Your task to perform on an android device: change alarm snooze length Image 0: 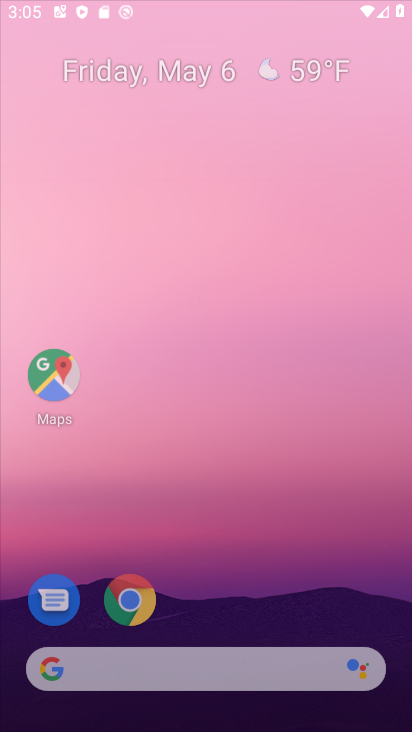
Step 0: click (299, 255)
Your task to perform on an android device: change alarm snooze length Image 1: 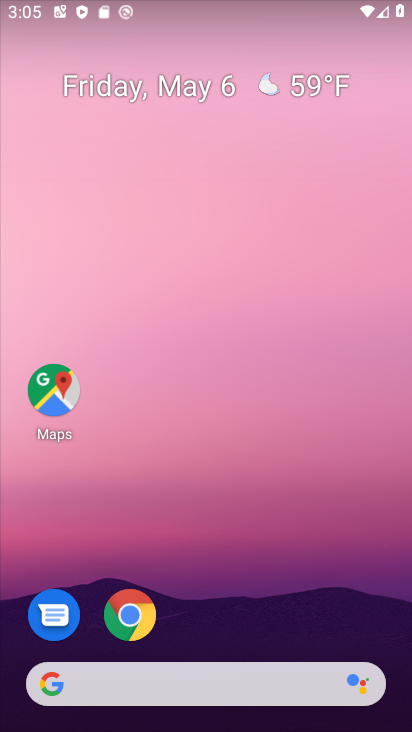
Step 1: drag from (254, 563) to (271, 281)
Your task to perform on an android device: change alarm snooze length Image 2: 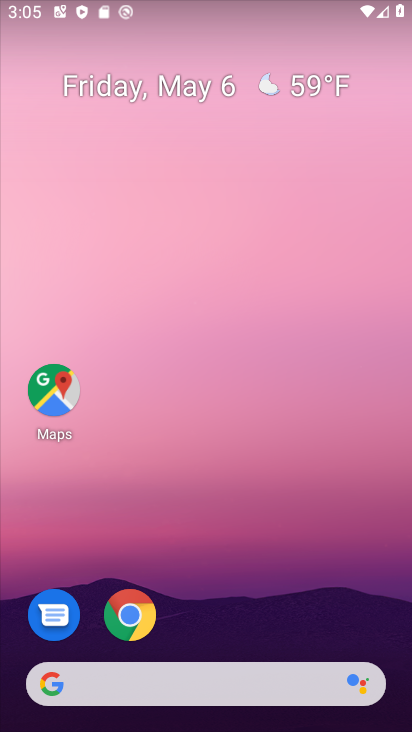
Step 2: drag from (249, 587) to (256, 221)
Your task to perform on an android device: change alarm snooze length Image 3: 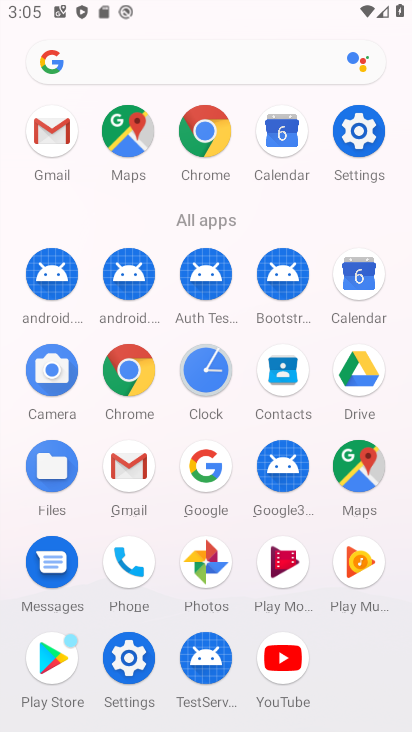
Step 3: click (47, 131)
Your task to perform on an android device: change alarm snooze length Image 4: 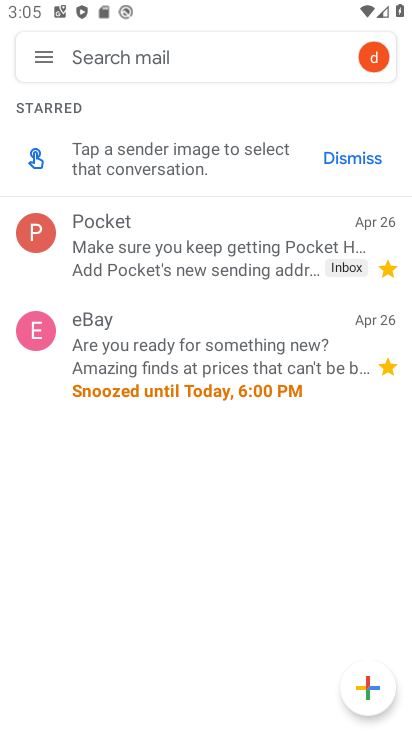
Step 4: click (36, 46)
Your task to perform on an android device: change alarm snooze length Image 5: 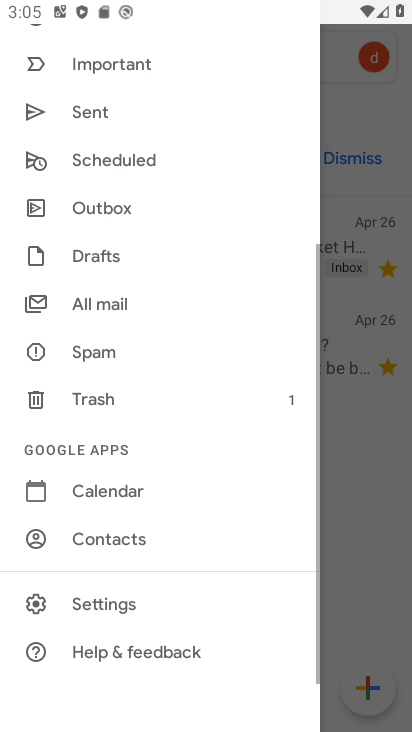
Step 5: drag from (153, 142) to (104, 674)
Your task to perform on an android device: change alarm snooze length Image 6: 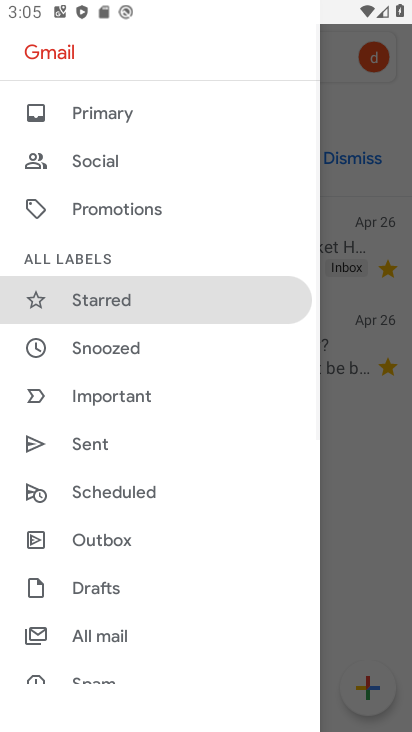
Step 6: click (114, 343)
Your task to perform on an android device: change alarm snooze length Image 7: 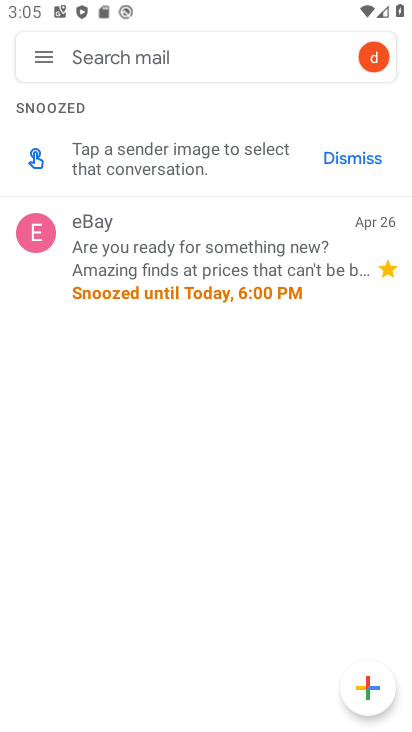
Step 7: press home button
Your task to perform on an android device: change alarm snooze length Image 8: 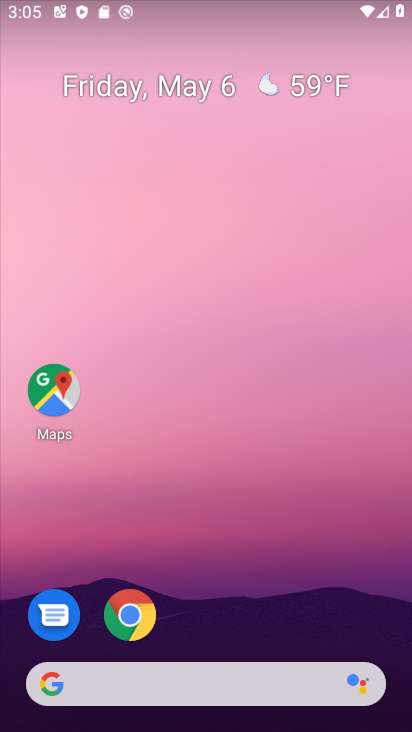
Step 8: drag from (256, 538) to (249, 274)
Your task to perform on an android device: change alarm snooze length Image 9: 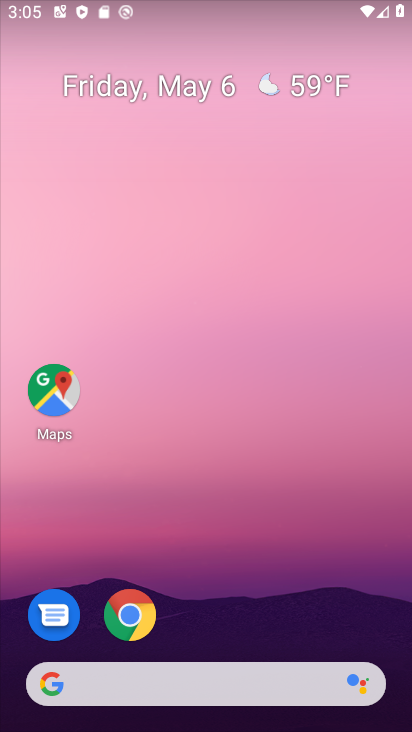
Step 9: drag from (287, 625) to (297, 247)
Your task to perform on an android device: change alarm snooze length Image 10: 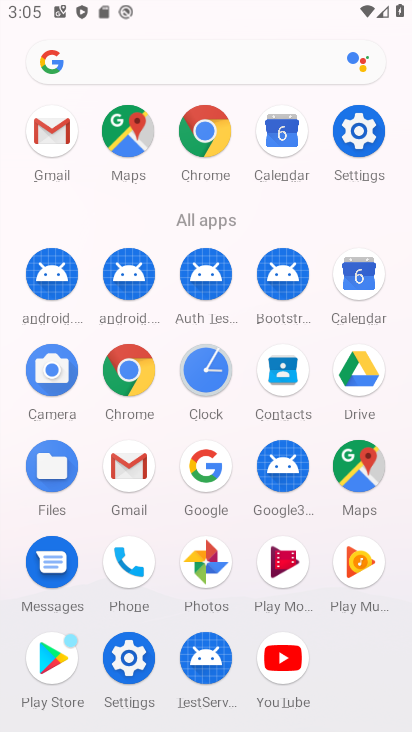
Step 10: click (208, 377)
Your task to perform on an android device: change alarm snooze length Image 11: 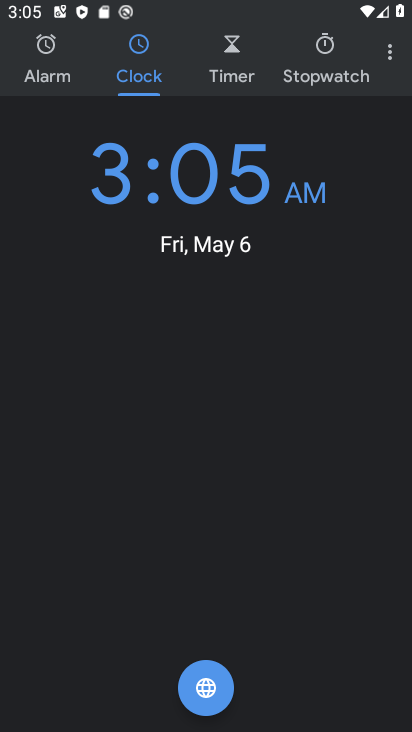
Step 11: click (383, 57)
Your task to perform on an android device: change alarm snooze length Image 12: 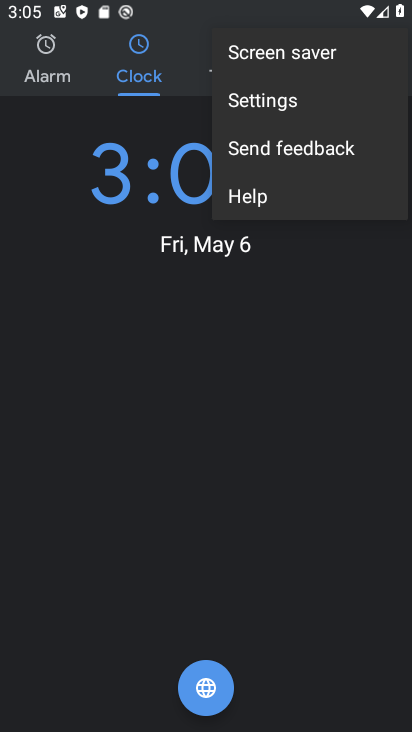
Step 12: click (257, 107)
Your task to perform on an android device: change alarm snooze length Image 13: 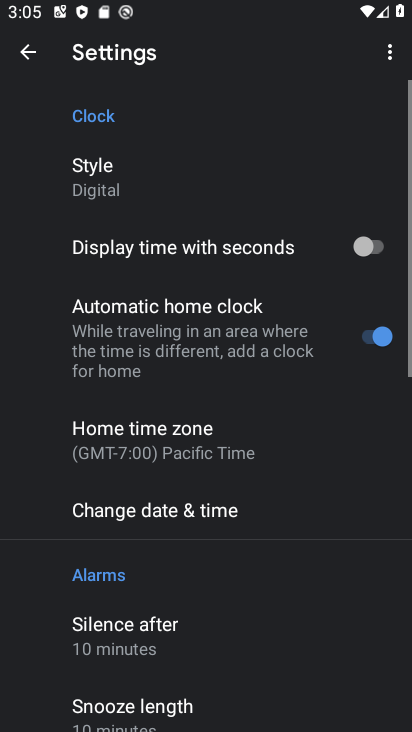
Step 13: drag from (189, 645) to (252, 265)
Your task to perform on an android device: change alarm snooze length Image 14: 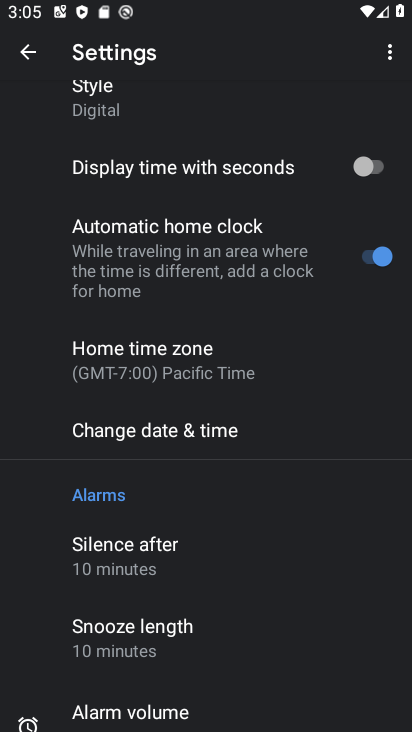
Step 14: click (148, 636)
Your task to perform on an android device: change alarm snooze length Image 15: 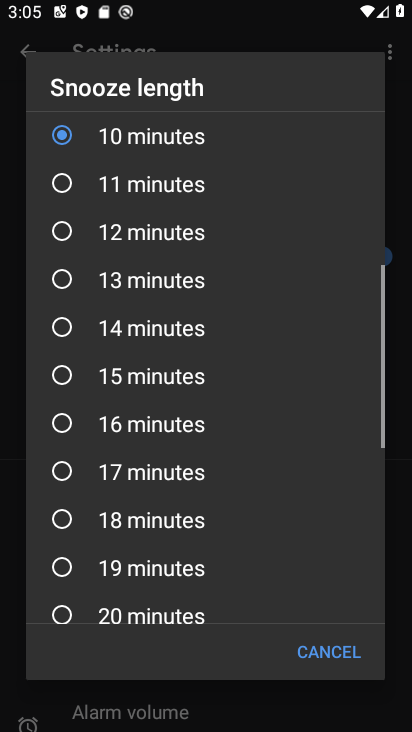
Step 15: drag from (219, 567) to (267, 305)
Your task to perform on an android device: change alarm snooze length Image 16: 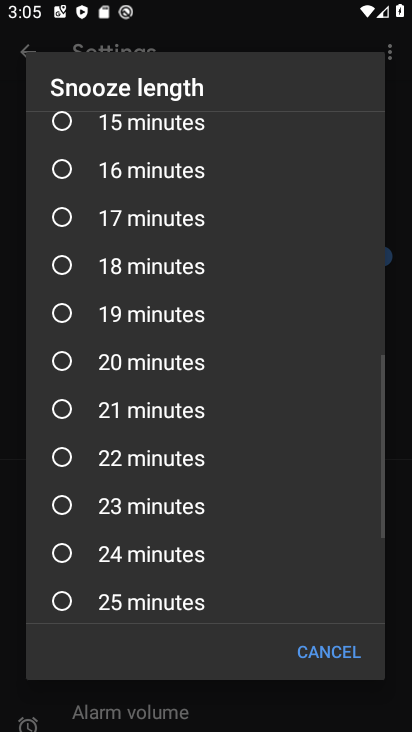
Step 16: click (123, 469)
Your task to perform on an android device: change alarm snooze length Image 17: 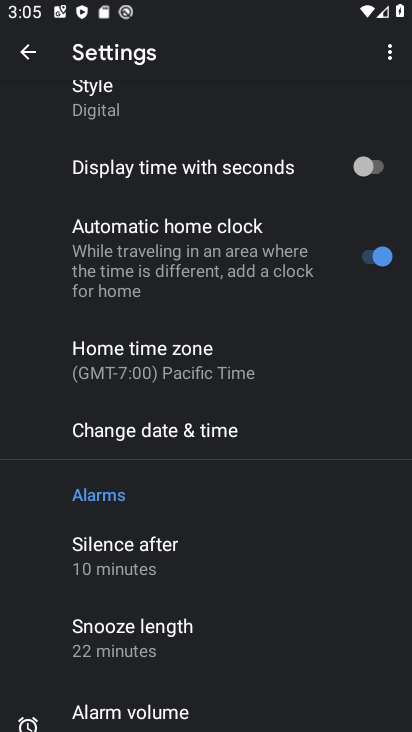
Step 17: task complete